Your task to perform on an android device: turn off data saver in the chrome app Image 0: 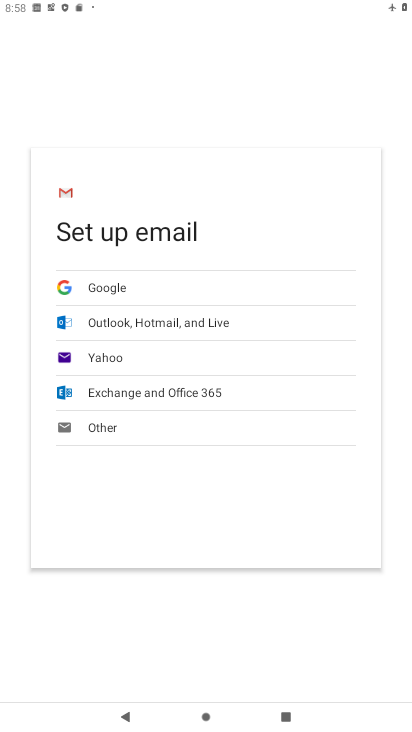
Step 0: press home button
Your task to perform on an android device: turn off data saver in the chrome app Image 1: 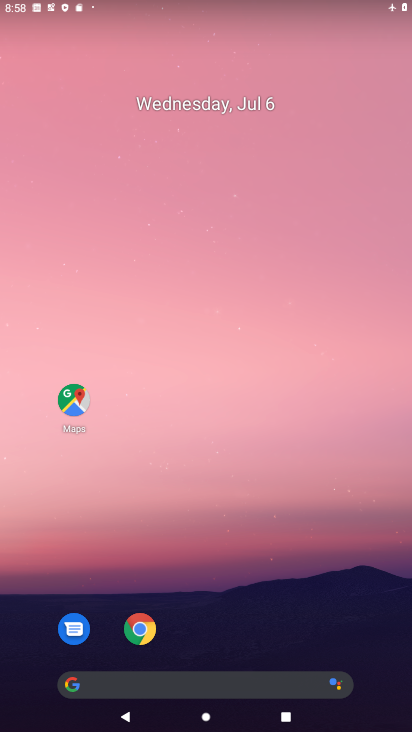
Step 1: click (143, 629)
Your task to perform on an android device: turn off data saver in the chrome app Image 2: 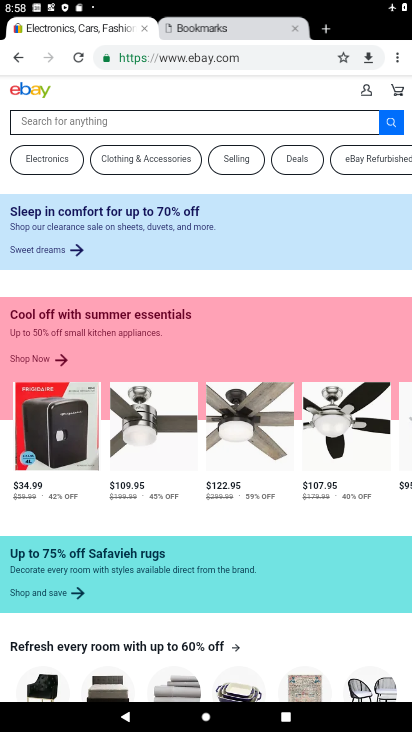
Step 2: click (398, 58)
Your task to perform on an android device: turn off data saver in the chrome app Image 3: 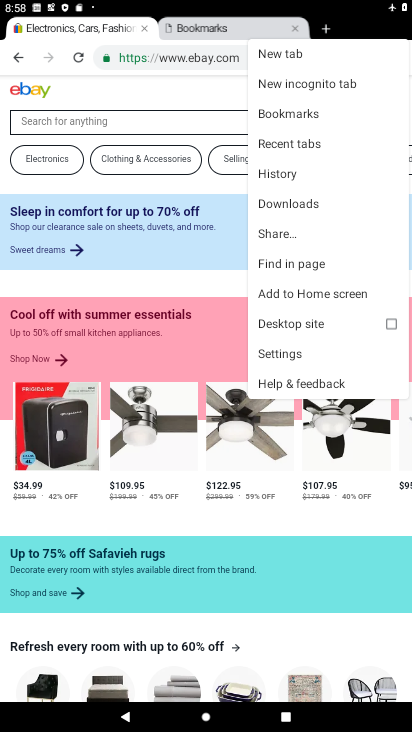
Step 3: click (288, 351)
Your task to perform on an android device: turn off data saver in the chrome app Image 4: 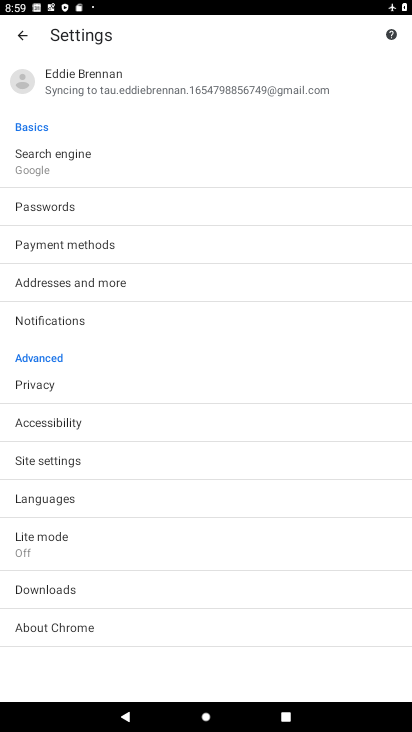
Step 4: click (51, 535)
Your task to perform on an android device: turn off data saver in the chrome app Image 5: 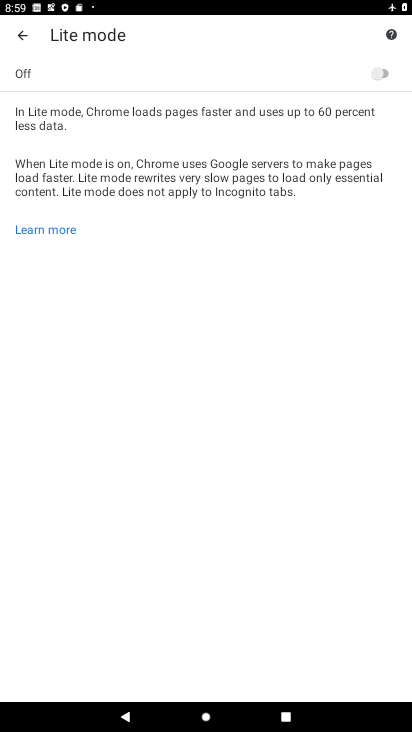
Step 5: task complete